Your task to perform on an android device: turn on data saver in the chrome app Image 0: 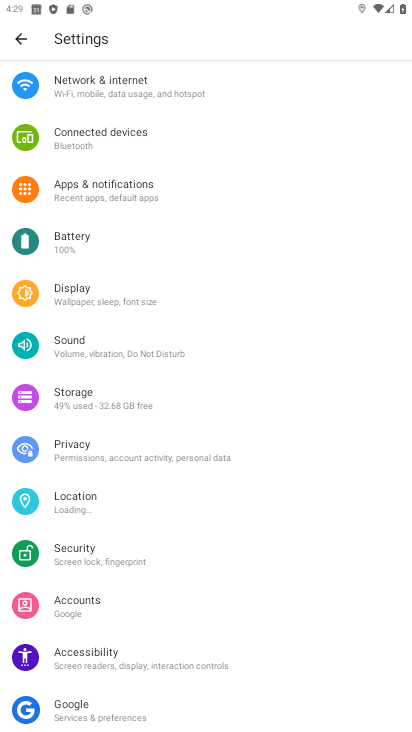
Step 0: press home button
Your task to perform on an android device: turn on data saver in the chrome app Image 1: 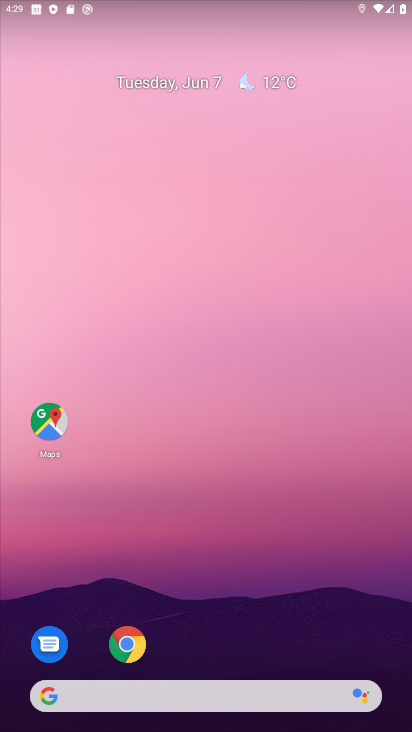
Step 1: click (130, 644)
Your task to perform on an android device: turn on data saver in the chrome app Image 2: 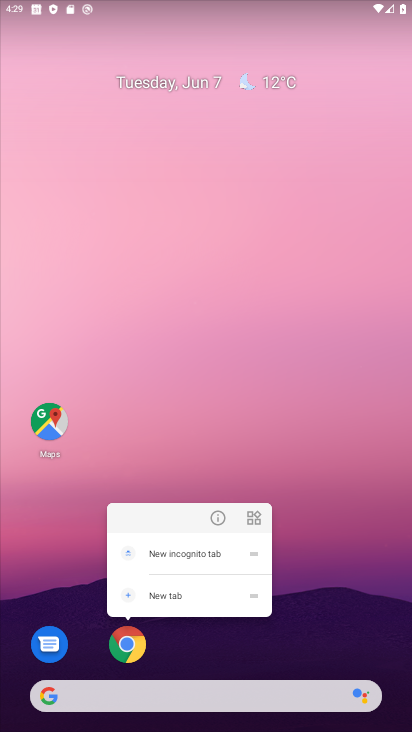
Step 2: click (127, 653)
Your task to perform on an android device: turn on data saver in the chrome app Image 3: 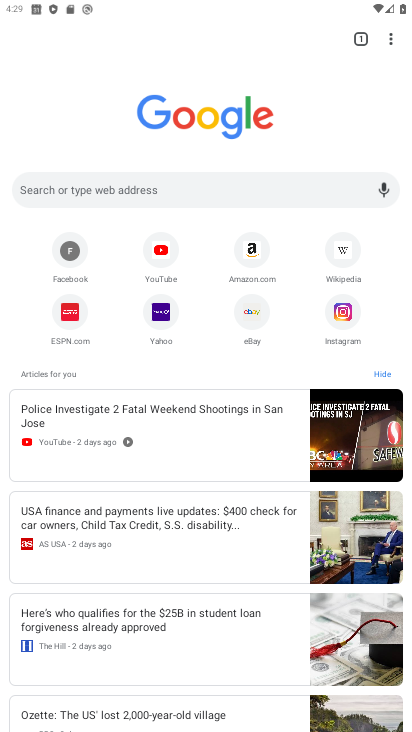
Step 3: drag from (391, 36) to (251, 330)
Your task to perform on an android device: turn on data saver in the chrome app Image 4: 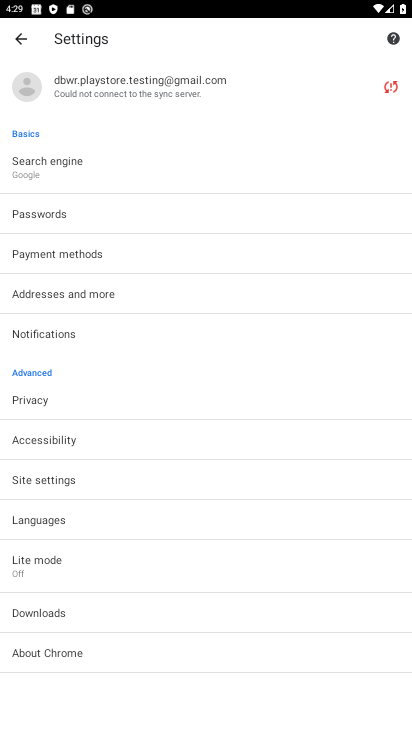
Step 4: click (74, 569)
Your task to perform on an android device: turn on data saver in the chrome app Image 5: 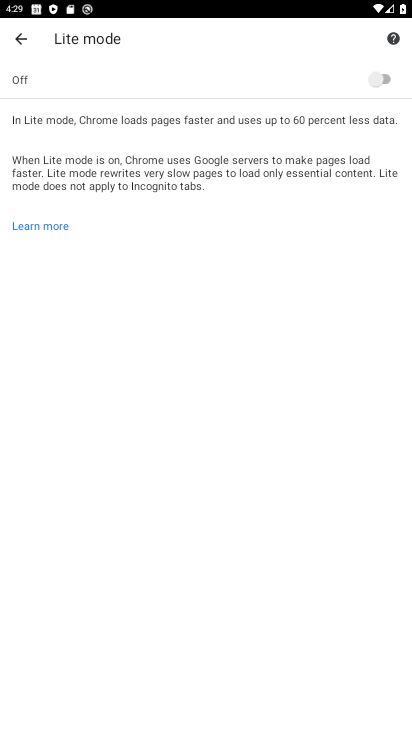
Step 5: click (385, 76)
Your task to perform on an android device: turn on data saver in the chrome app Image 6: 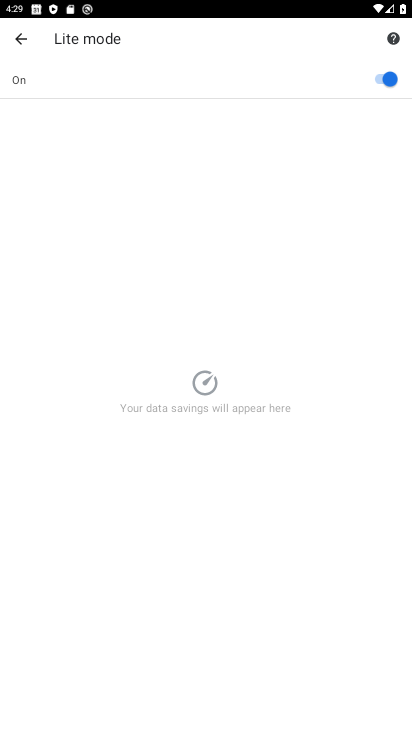
Step 6: task complete